Your task to perform on an android device: Go to privacy settings Image 0: 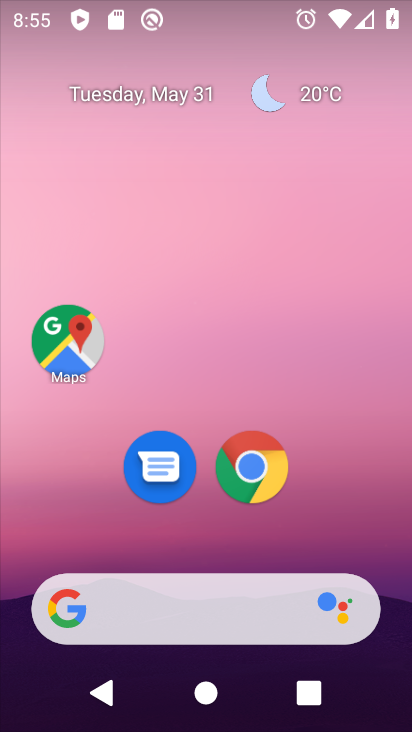
Step 0: drag from (207, 416) to (277, 51)
Your task to perform on an android device: Go to privacy settings Image 1: 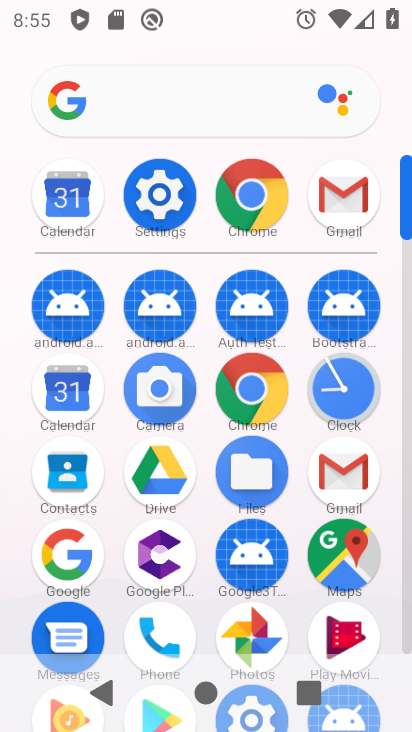
Step 1: click (157, 170)
Your task to perform on an android device: Go to privacy settings Image 2: 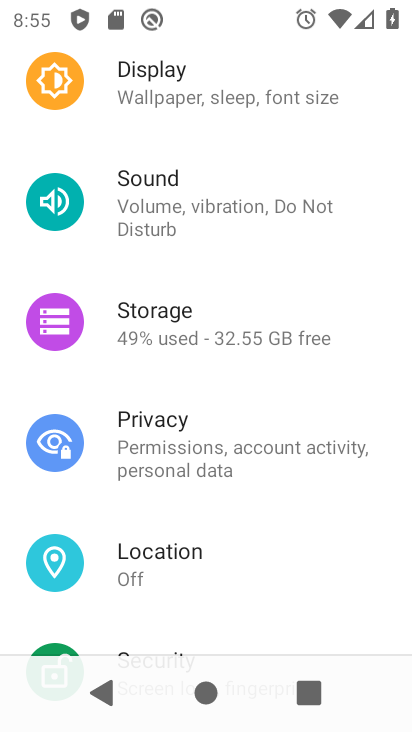
Step 2: click (181, 429)
Your task to perform on an android device: Go to privacy settings Image 3: 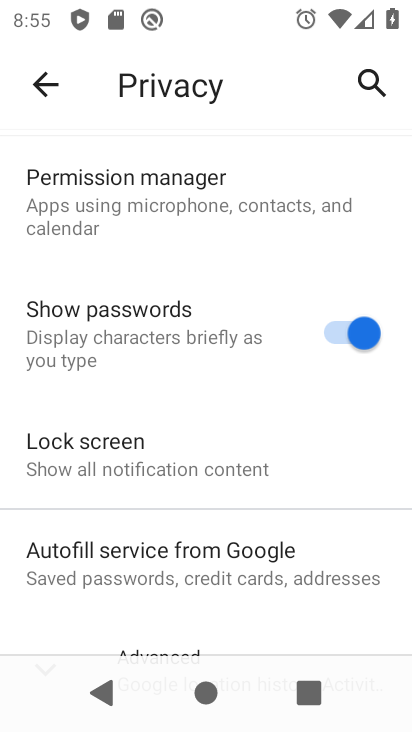
Step 3: task complete